Your task to perform on an android device: Go to Google Image 0: 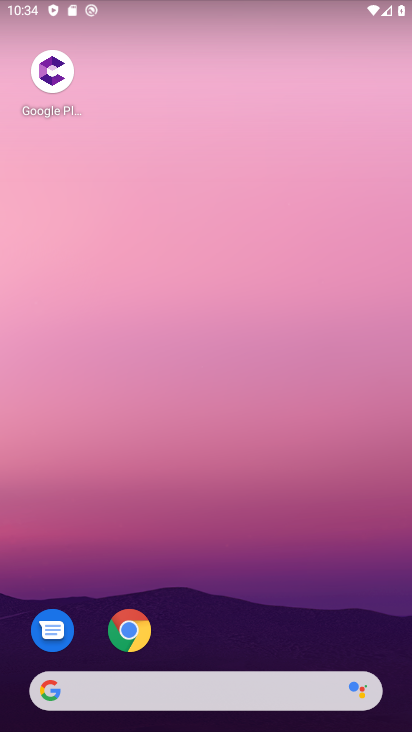
Step 0: drag from (215, 598) to (216, 238)
Your task to perform on an android device: Go to Google Image 1: 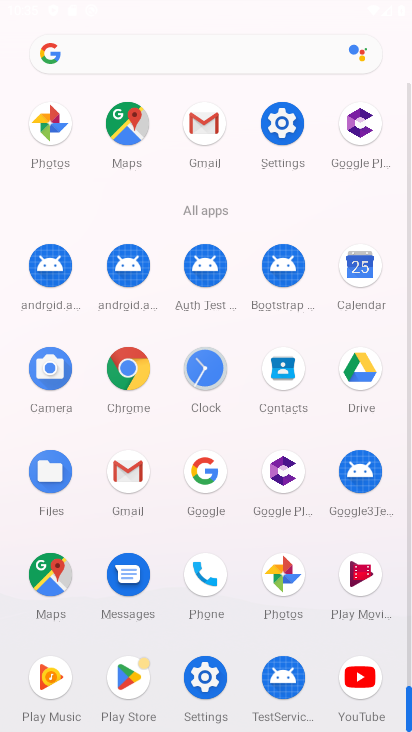
Step 1: click (210, 488)
Your task to perform on an android device: Go to Google Image 2: 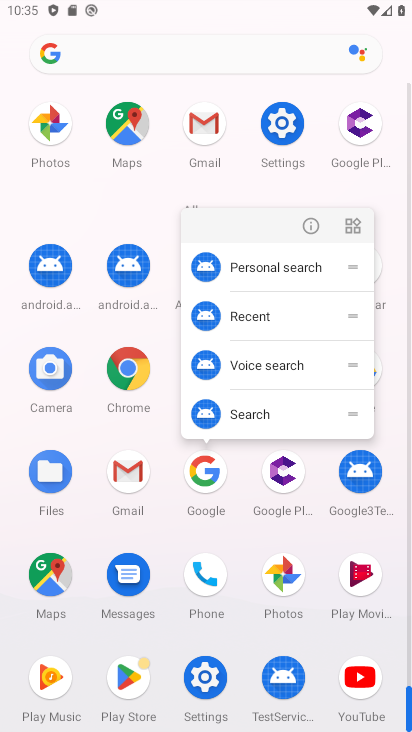
Step 2: click (312, 231)
Your task to perform on an android device: Go to Google Image 3: 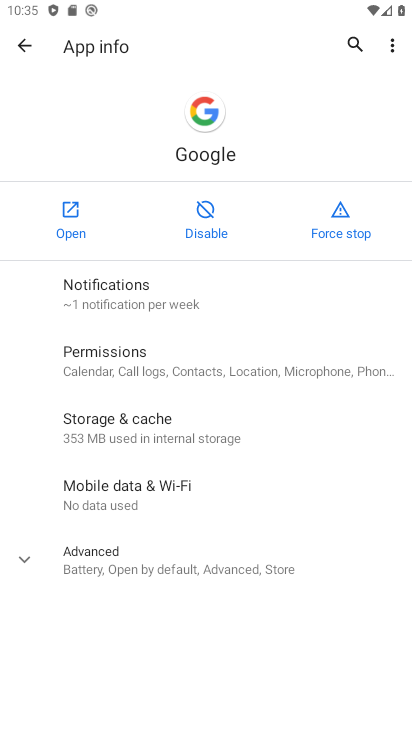
Step 3: click (72, 235)
Your task to perform on an android device: Go to Google Image 4: 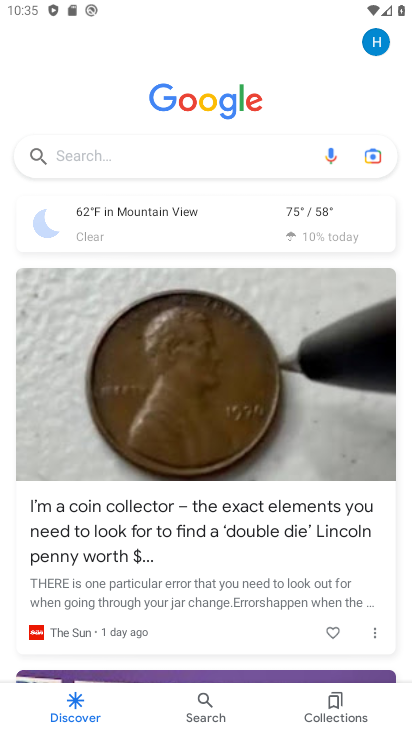
Step 4: task complete